Your task to perform on an android device: Open location settings Image 0: 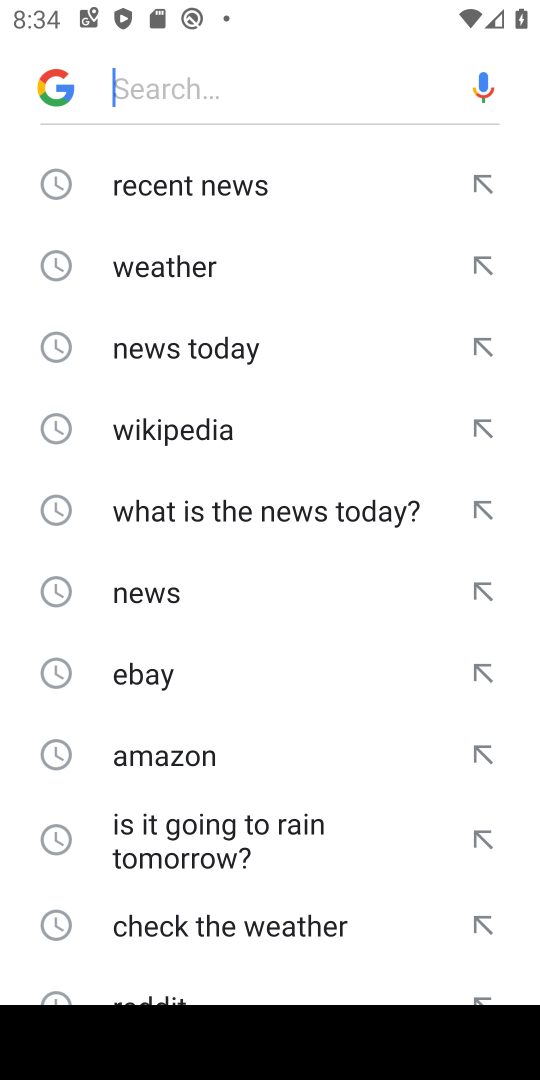
Step 0: press home button
Your task to perform on an android device: Open location settings Image 1: 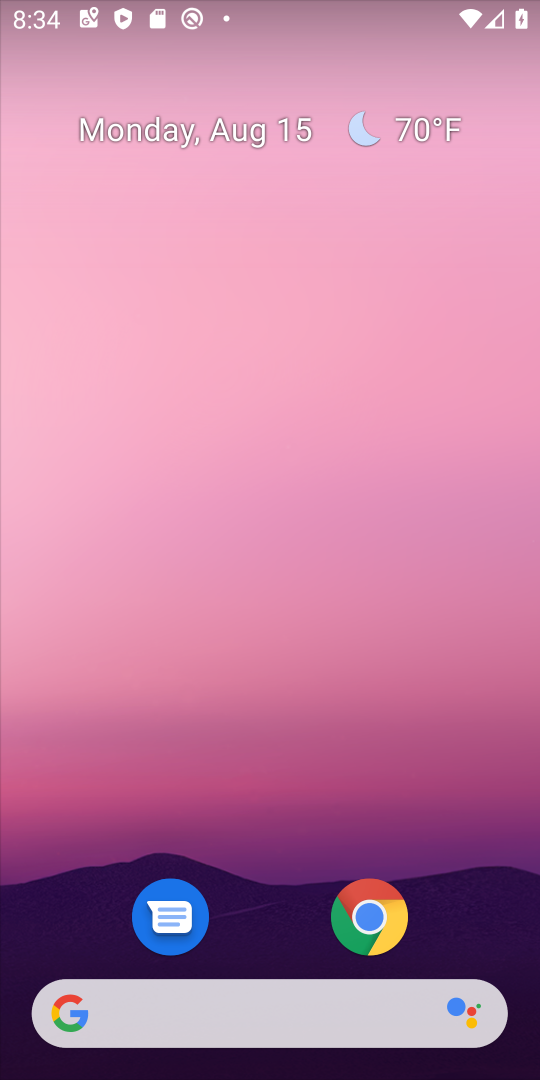
Step 1: drag from (274, 863) to (321, 2)
Your task to perform on an android device: Open location settings Image 2: 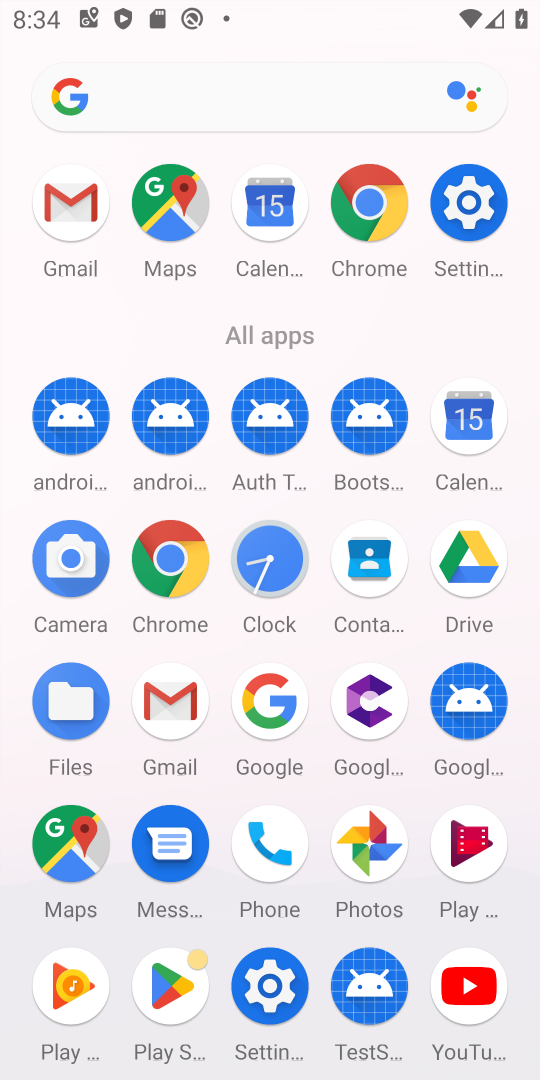
Step 2: click (467, 203)
Your task to perform on an android device: Open location settings Image 3: 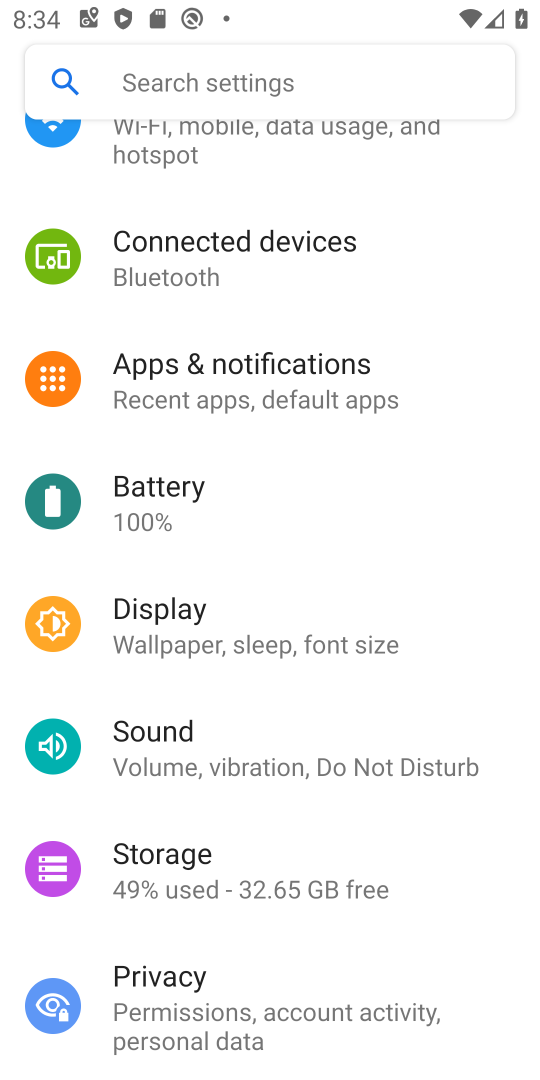
Step 3: drag from (279, 857) to (341, 123)
Your task to perform on an android device: Open location settings Image 4: 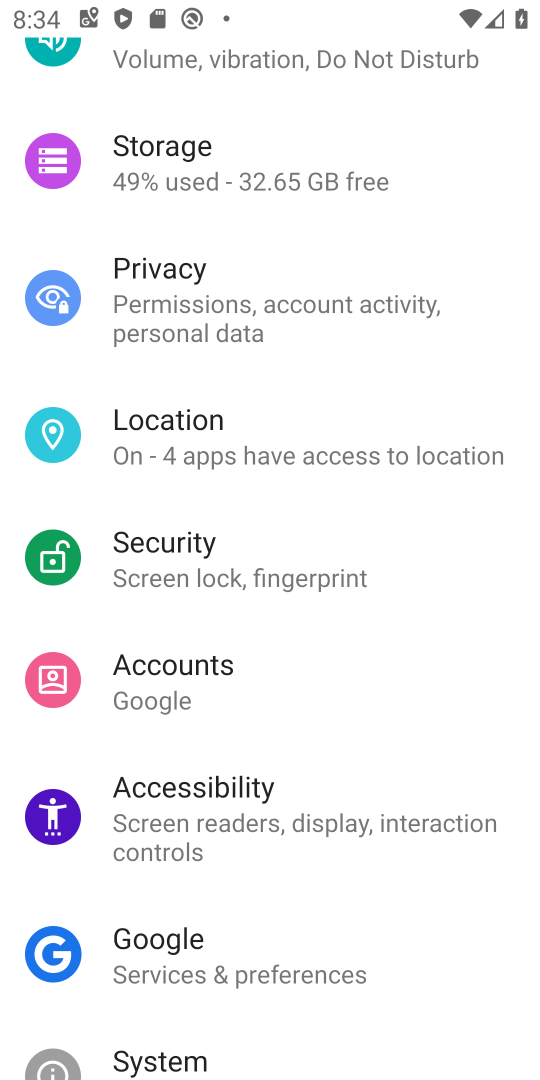
Step 4: click (294, 433)
Your task to perform on an android device: Open location settings Image 5: 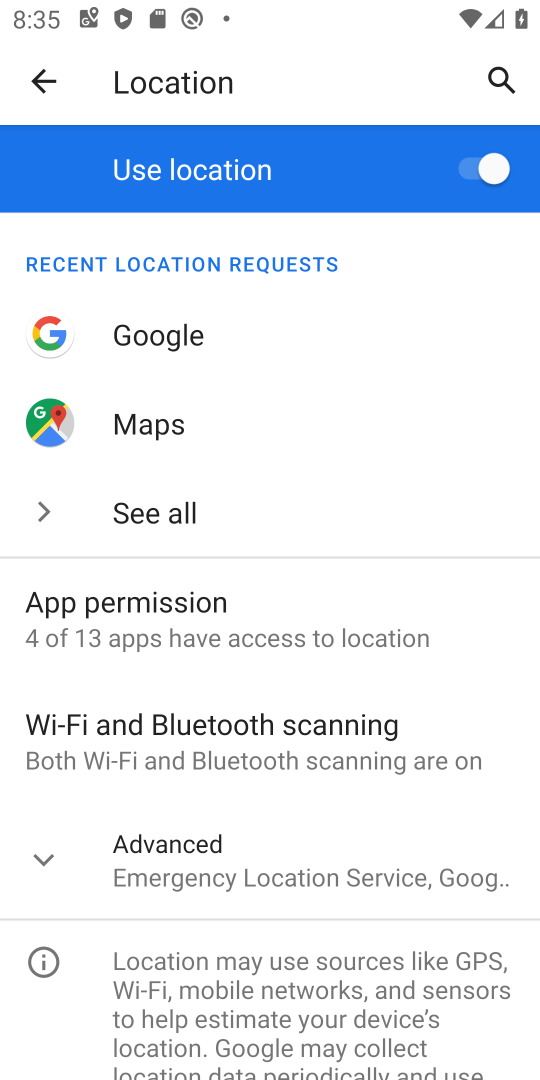
Step 5: task complete